Your task to perform on an android device: Is it going to rain today? Image 0: 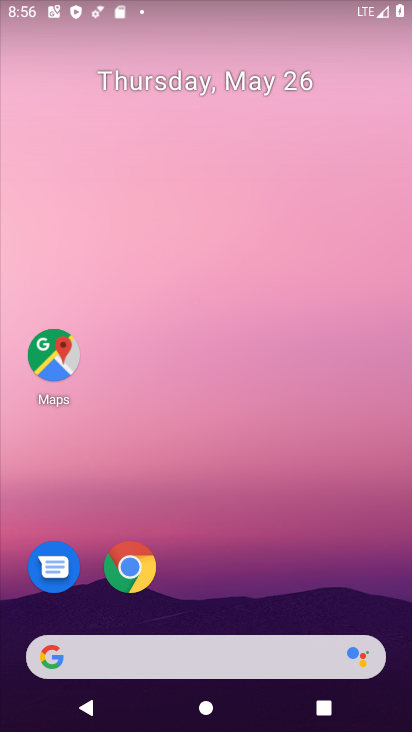
Step 0: click (181, 654)
Your task to perform on an android device: Is it going to rain today? Image 1: 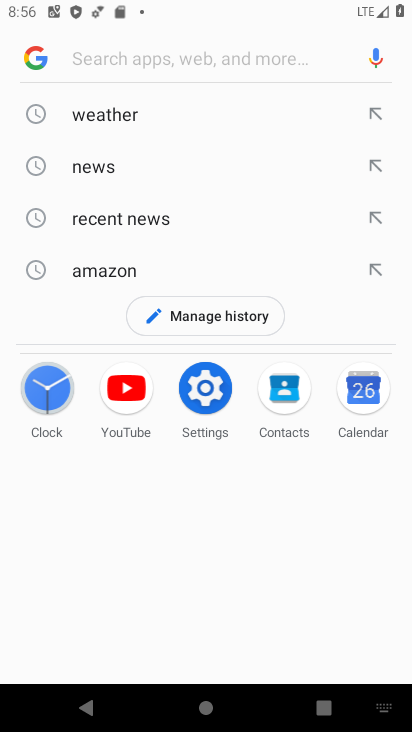
Step 1: type "Is it going to rain today?"
Your task to perform on an android device: Is it going to rain today? Image 2: 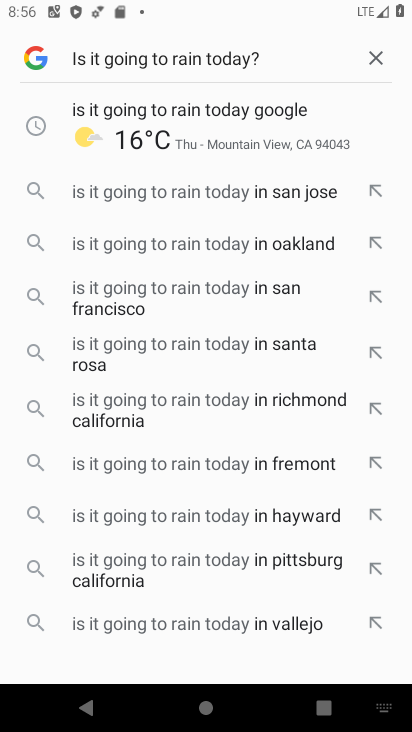
Step 2: click (298, 115)
Your task to perform on an android device: Is it going to rain today? Image 3: 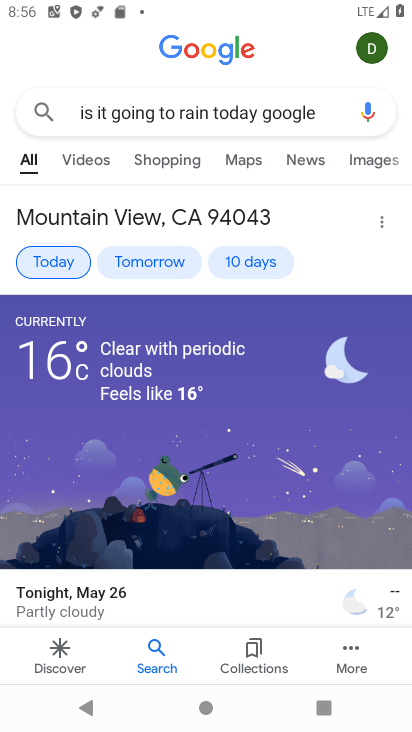
Step 3: task complete